Your task to perform on an android device: add a contact in the contacts app Image 0: 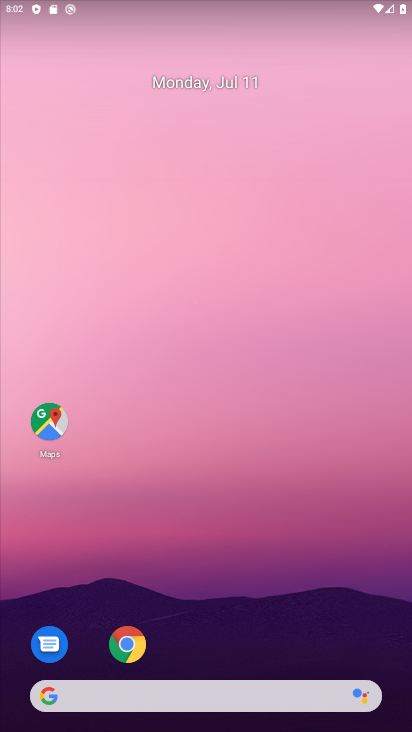
Step 0: drag from (196, 698) to (338, 107)
Your task to perform on an android device: add a contact in the contacts app Image 1: 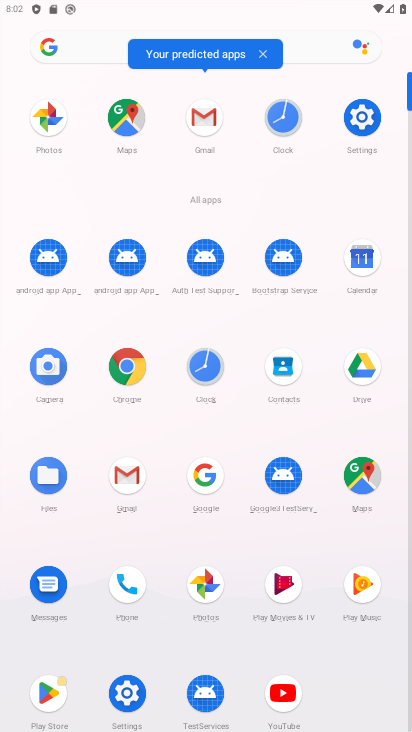
Step 1: click (282, 362)
Your task to perform on an android device: add a contact in the contacts app Image 2: 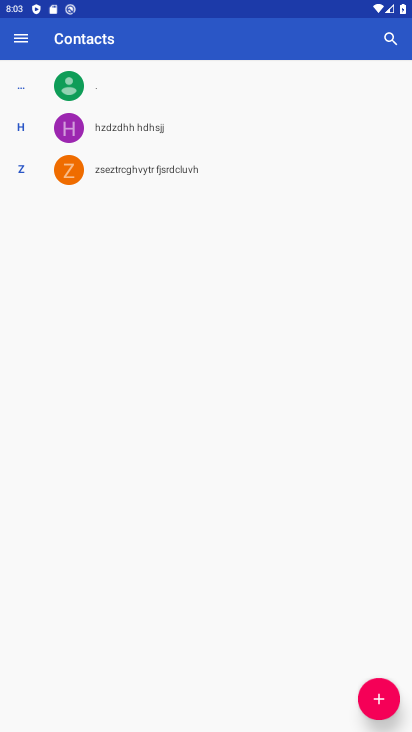
Step 2: click (379, 690)
Your task to perform on an android device: add a contact in the contacts app Image 3: 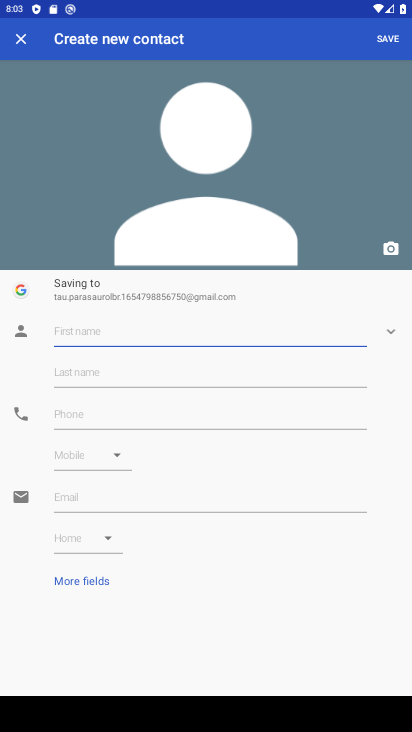
Step 3: click (138, 326)
Your task to perform on an android device: add a contact in the contacts app Image 4: 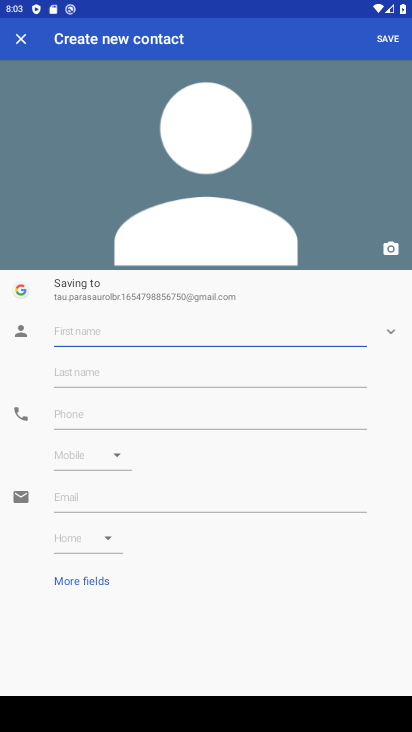
Step 4: type "nhyghhhj"
Your task to perform on an android device: add a contact in the contacts app Image 5: 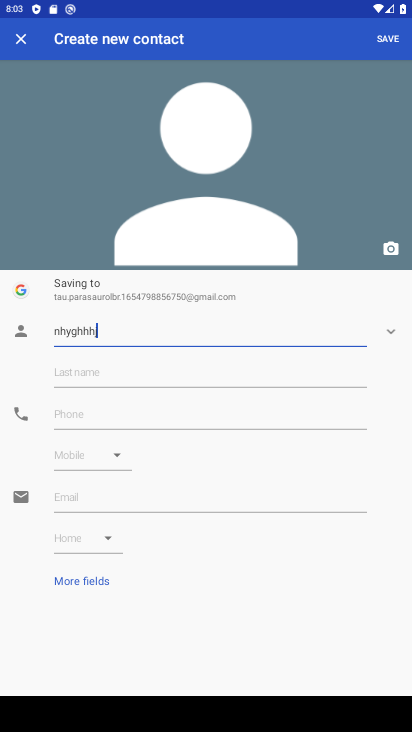
Step 5: click (96, 411)
Your task to perform on an android device: add a contact in the contacts app Image 6: 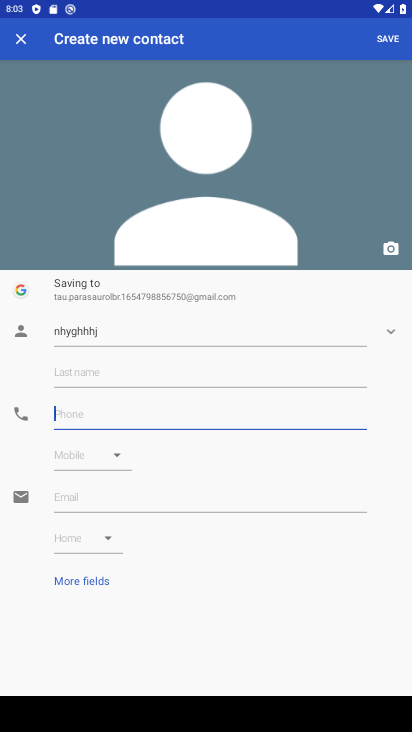
Step 6: type "5644566"
Your task to perform on an android device: add a contact in the contacts app Image 7: 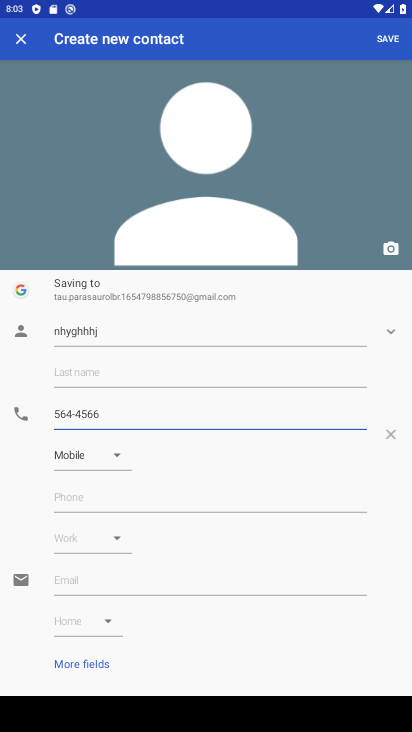
Step 7: click (389, 37)
Your task to perform on an android device: add a contact in the contacts app Image 8: 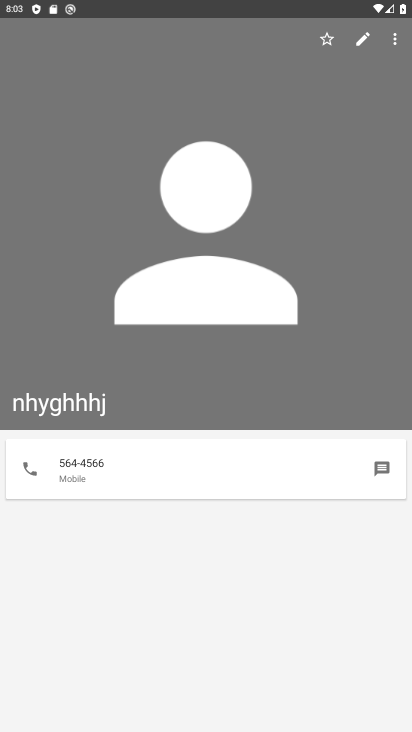
Step 8: task complete